Your task to perform on an android device: Turn off the flashlight Image 0: 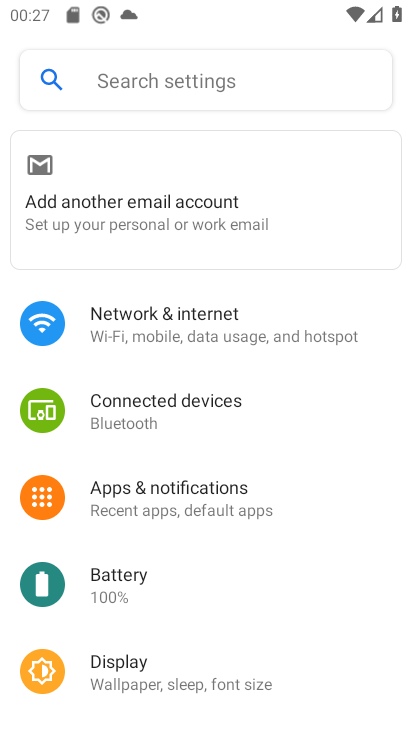
Step 0: click (68, 93)
Your task to perform on an android device: Turn off the flashlight Image 1: 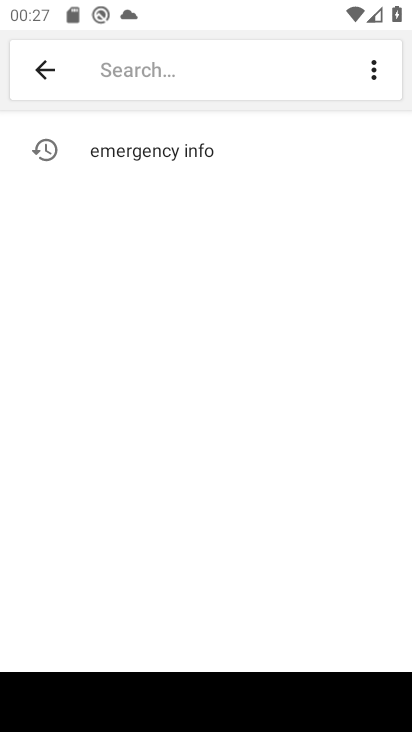
Step 1: type "Flashlight"
Your task to perform on an android device: Turn off the flashlight Image 2: 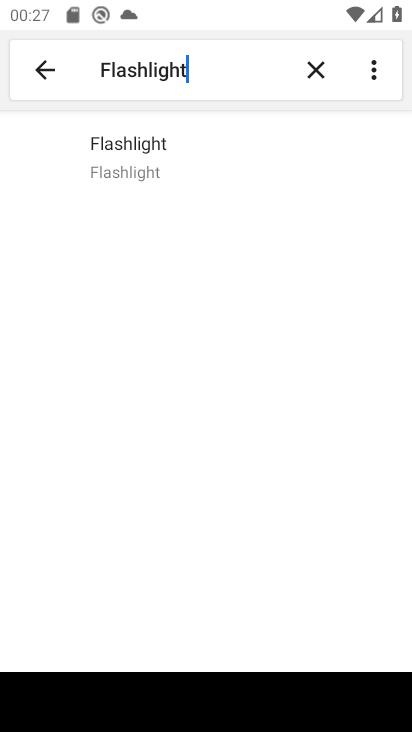
Step 2: click (192, 171)
Your task to perform on an android device: Turn off the flashlight Image 3: 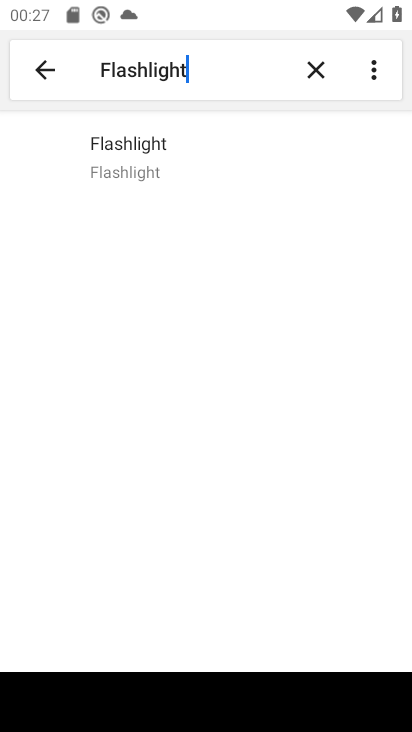
Step 3: task complete